Your task to perform on an android device: uninstall "Paramount+ | Peak Streaming" Image 0: 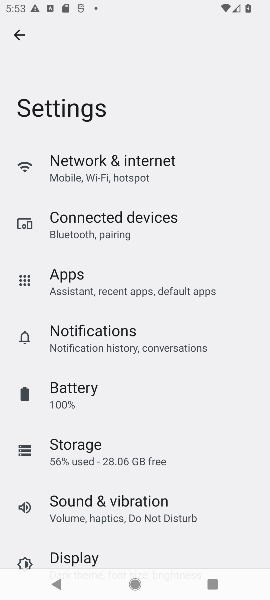
Step 0: press home button
Your task to perform on an android device: uninstall "Paramount+ | Peak Streaming" Image 1: 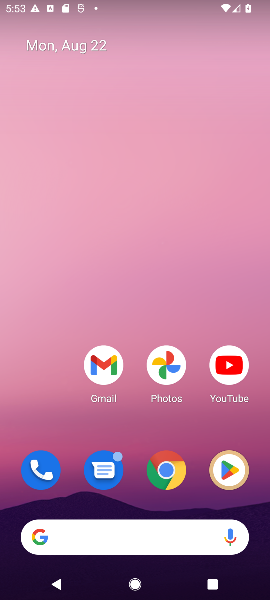
Step 1: click (229, 463)
Your task to perform on an android device: uninstall "Paramount+ | Peak Streaming" Image 2: 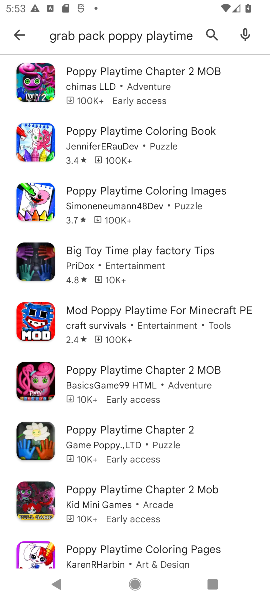
Step 2: click (20, 30)
Your task to perform on an android device: uninstall "Paramount+ | Peak Streaming" Image 3: 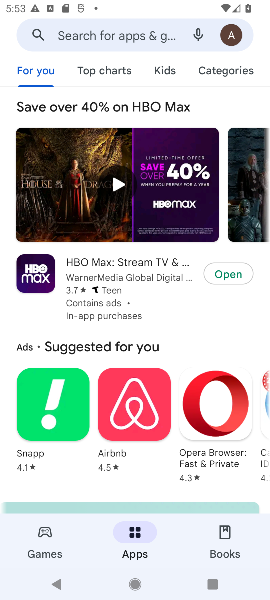
Step 3: click (107, 30)
Your task to perform on an android device: uninstall "Paramount+ | Peak Streaming" Image 4: 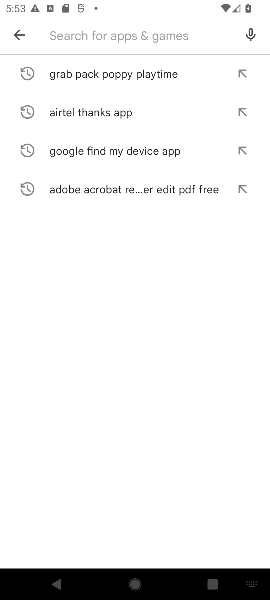
Step 4: type "Paramount+ "
Your task to perform on an android device: uninstall "Paramount+ | Peak Streaming" Image 5: 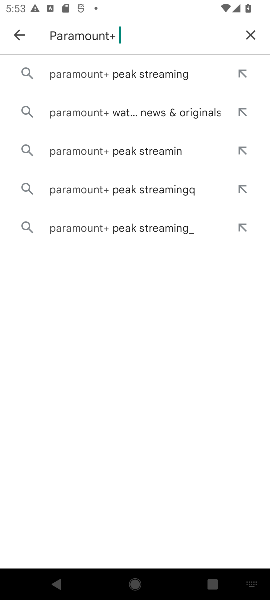
Step 5: click (176, 84)
Your task to perform on an android device: uninstall "Paramount+ | Peak Streaming" Image 6: 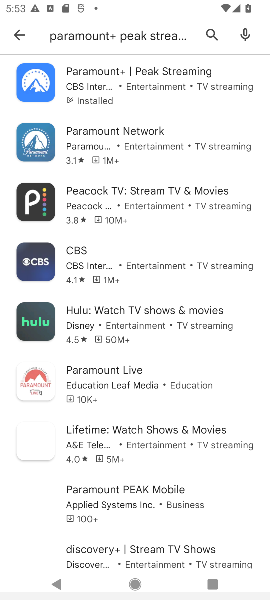
Step 6: click (94, 63)
Your task to perform on an android device: uninstall "Paramount+ | Peak Streaming" Image 7: 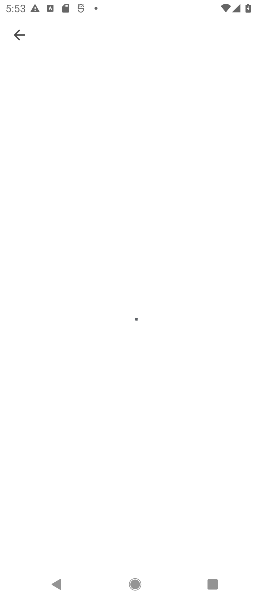
Step 7: click (94, 66)
Your task to perform on an android device: uninstall "Paramount+ | Peak Streaming" Image 8: 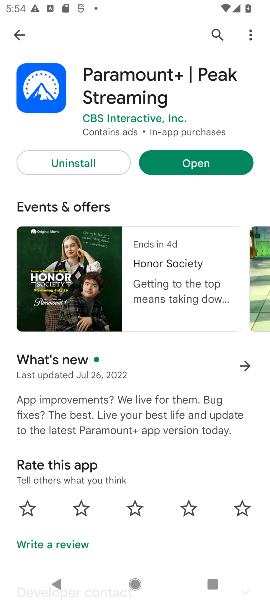
Step 8: click (52, 153)
Your task to perform on an android device: uninstall "Paramount+ | Peak Streaming" Image 9: 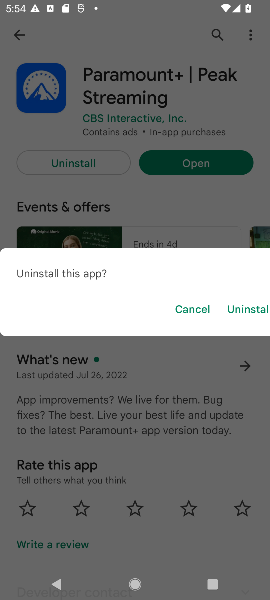
Step 9: click (243, 308)
Your task to perform on an android device: uninstall "Paramount+ | Peak Streaming" Image 10: 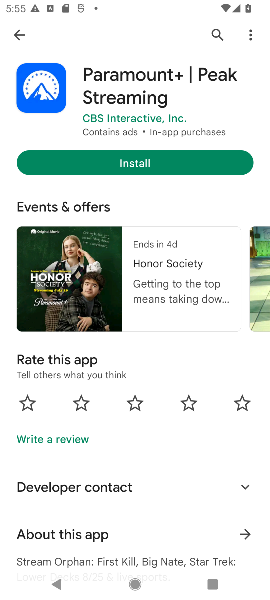
Step 10: task complete